Your task to perform on an android device: change notifications settings Image 0: 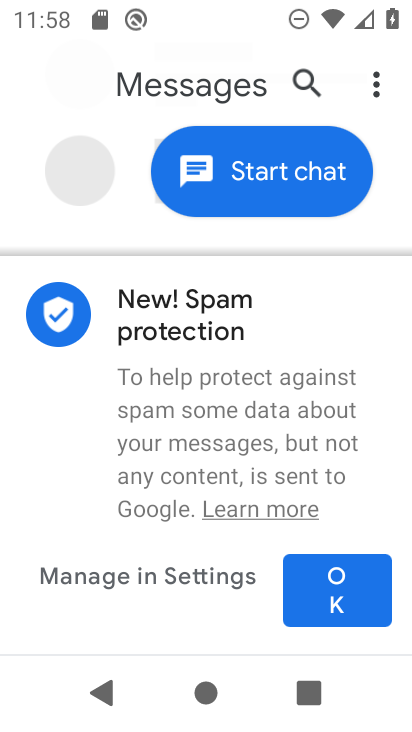
Step 0: press home button
Your task to perform on an android device: change notifications settings Image 1: 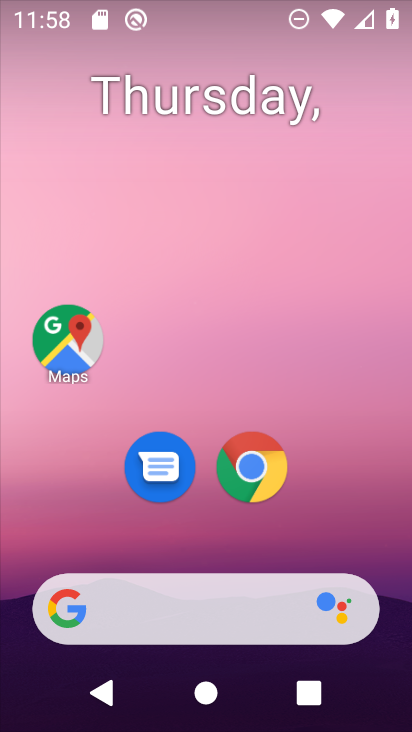
Step 1: drag from (342, 553) to (299, 0)
Your task to perform on an android device: change notifications settings Image 2: 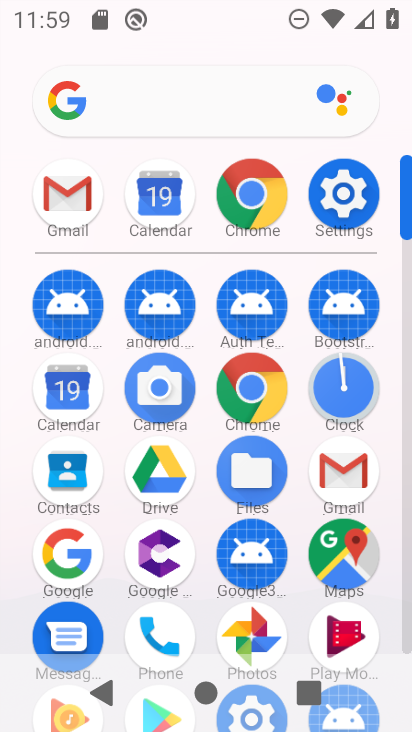
Step 2: click (339, 184)
Your task to perform on an android device: change notifications settings Image 3: 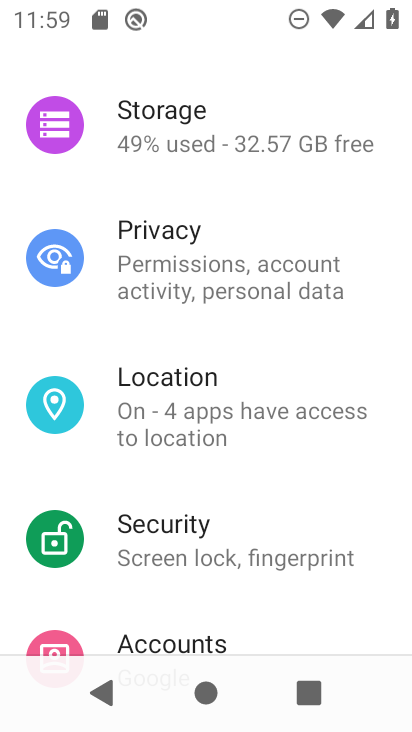
Step 3: drag from (320, 247) to (307, 538)
Your task to perform on an android device: change notifications settings Image 4: 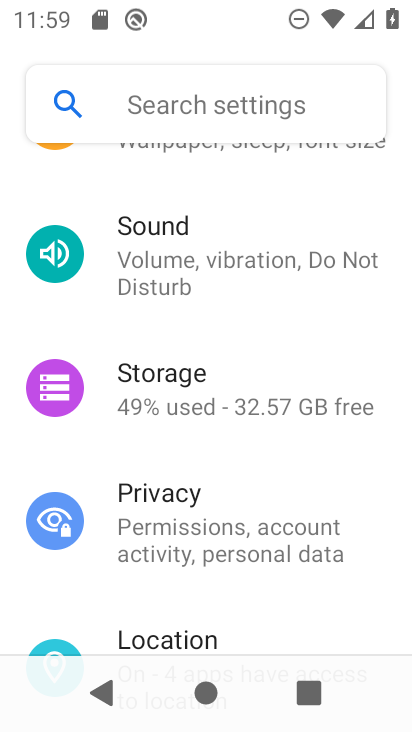
Step 4: drag from (284, 276) to (275, 527)
Your task to perform on an android device: change notifications settings Image 5: 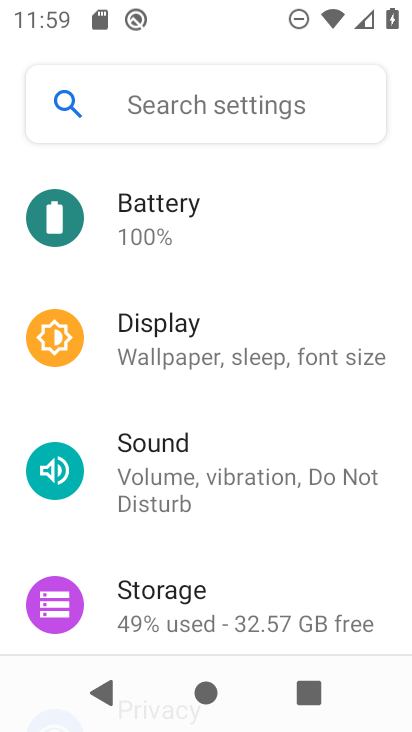
Step 5: drag from (264, 291) to (254, 568)
Your task to perform on an android device: change notifications settings Image 6: 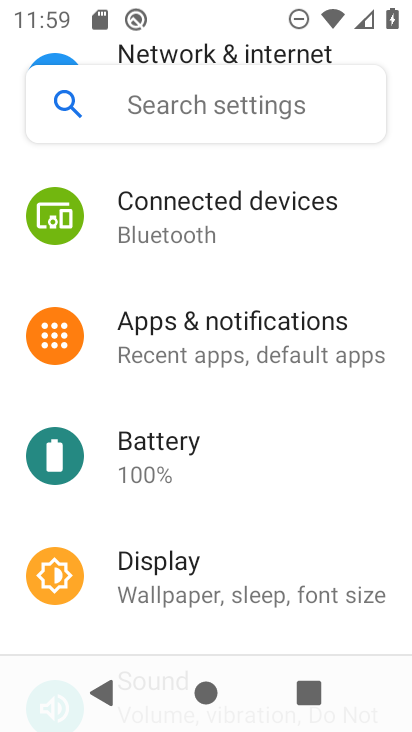
Step 6: click (211, 356)
Your task to perform on an android device: change notifications settings Image 7: 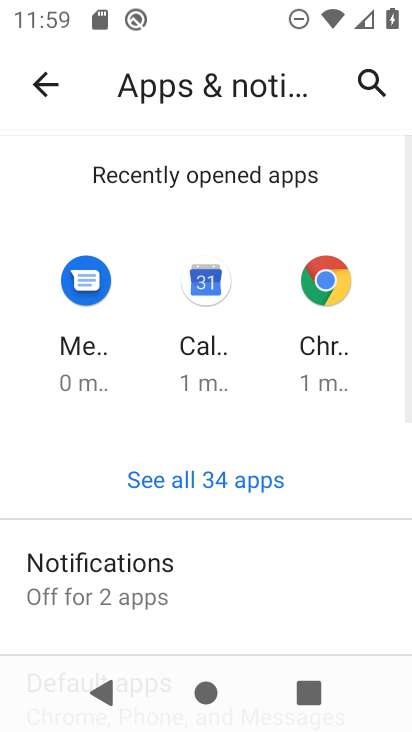
Step 7: click (145, 566)
Your task to perform on an android device: change notifications settings Image 8: 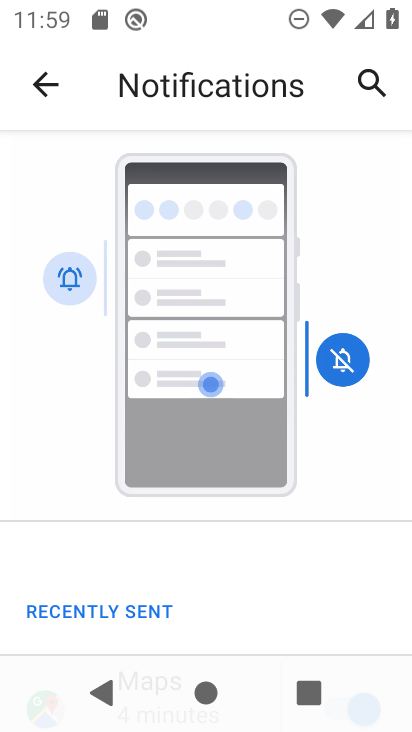
Step 8: drag from (203, 539) to (194, 71)
Your task to perform on an android device: change notifications settings Image 9: 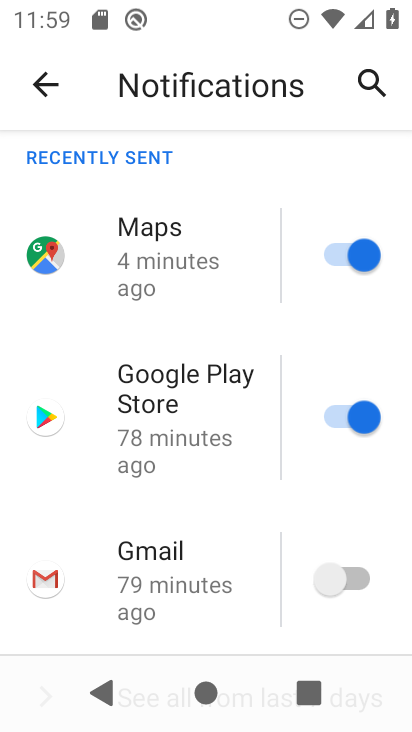
Step 9: drag from (182, 419) to (175, 68)
Your task to perform on an android device: change notifications settings Image 10: 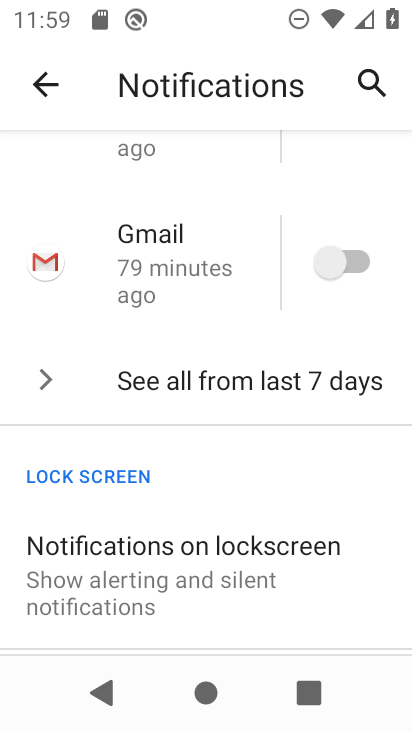
Step 10: click (204, 374)
Your task to perform on an android device: change notifications settings Image 11: 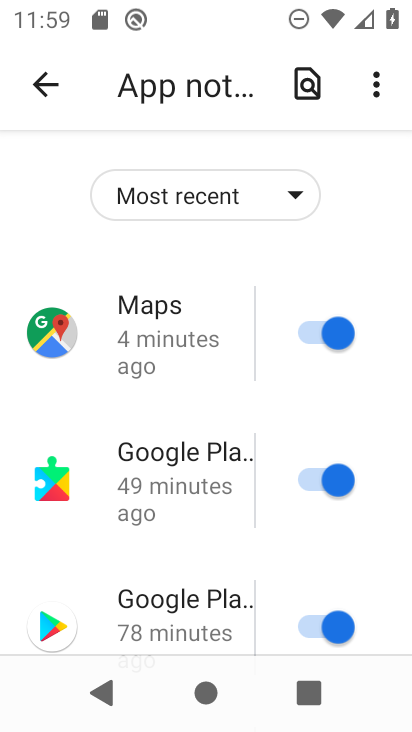
Step 11: click (299, 192)
Your task to perform on an android device: change notifications settings Image 12: 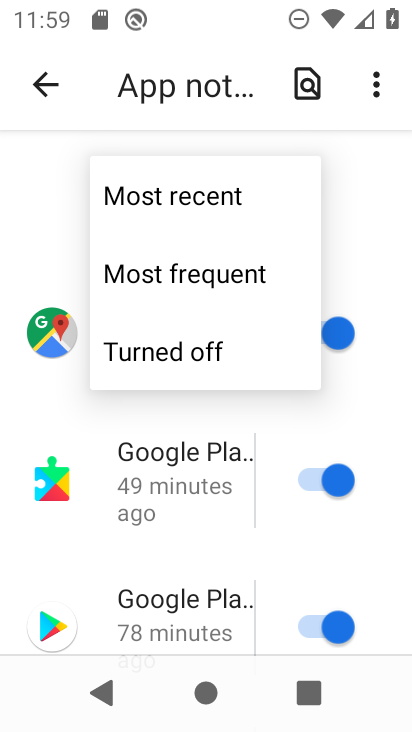
Step 12: click (187, 274)
Your task to perform on an android device: change notifications settings Image 13: 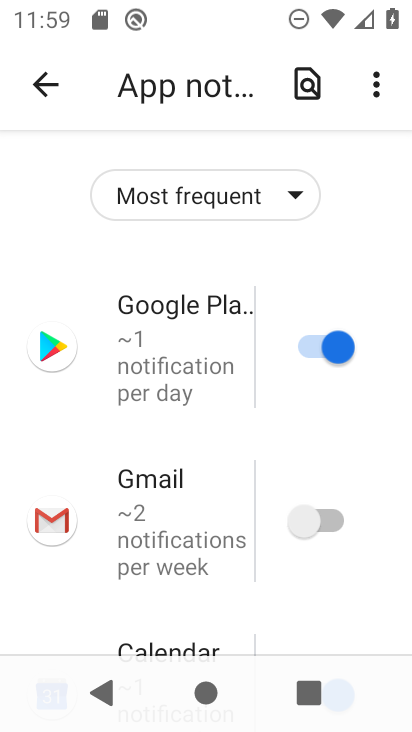
Step 13: task complete